Your task to perform on an android device: snooze an email in the gmail app Image 0: 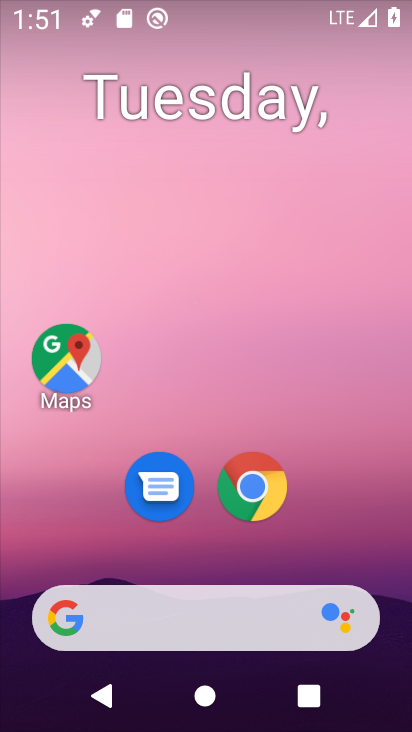
Step 0: press home button
Your task to perform on an android device: snooze an email in the gmail app Image 1: 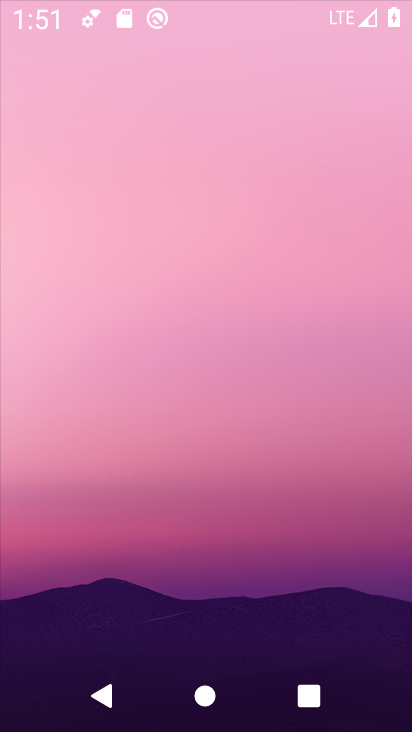
Step 1: drag from (358, 172) to (369, 99)
Your task to perform on an android device: snooze an email in the gmail app Image 2: 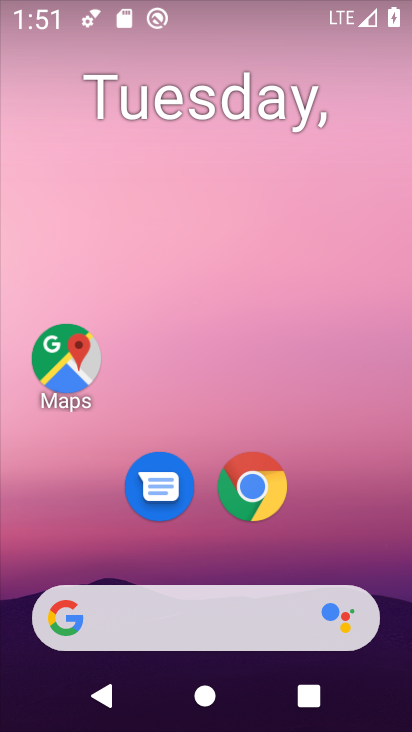
Step 2: drag from (377, 527) to (362, 109)
Your task to perform on an android device: snooze an email in the gmail app Image 3: 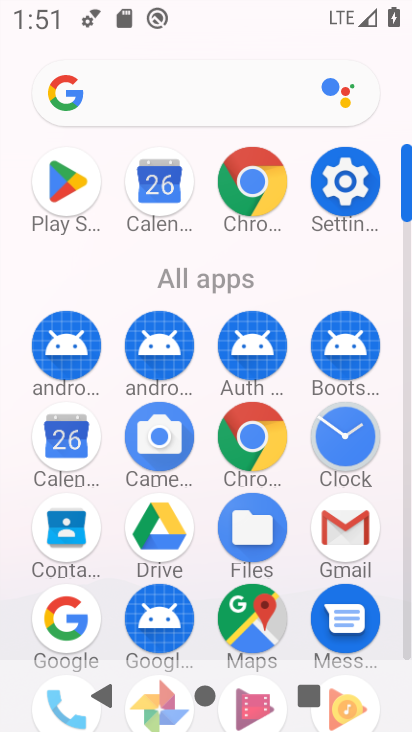
Step 3: click (349, 540)
Your task to perform on an android device: snooze an email in the gmail app Image 4: 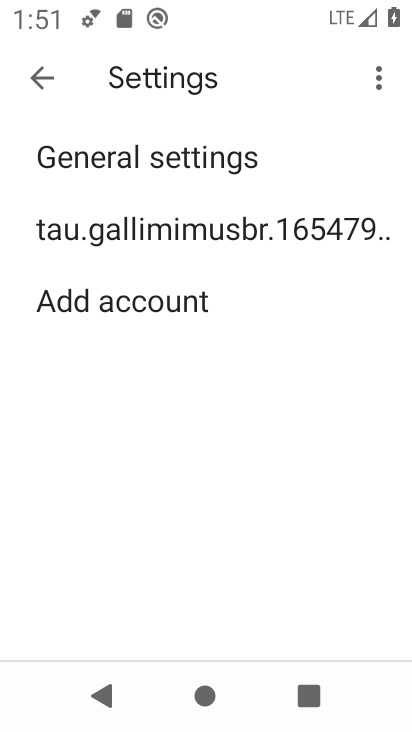
Step 4: press back button
Your task to perform on an android device: snooze an email in the gmail app Image 5: 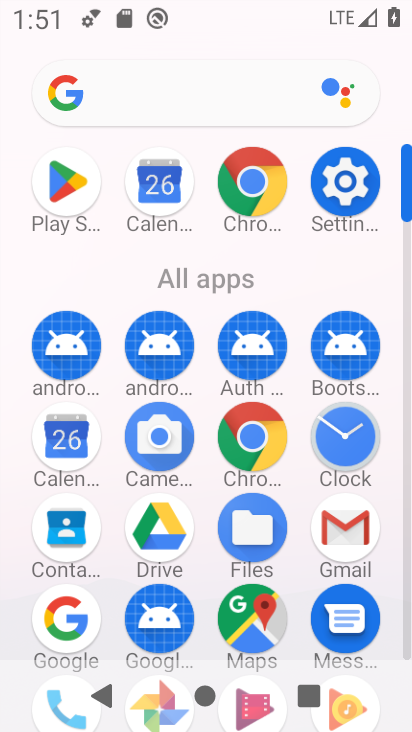
Step 5: click (349, 537)
Your task to perform on an android device: snooze an email in the gmail app Image 6: 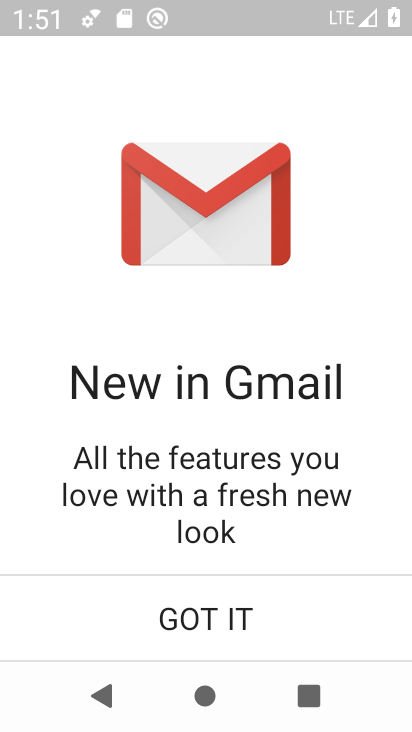
Step 6: click (277, 601)
Your task to perform on an android device: snooze an email in the gmail app Image 7: 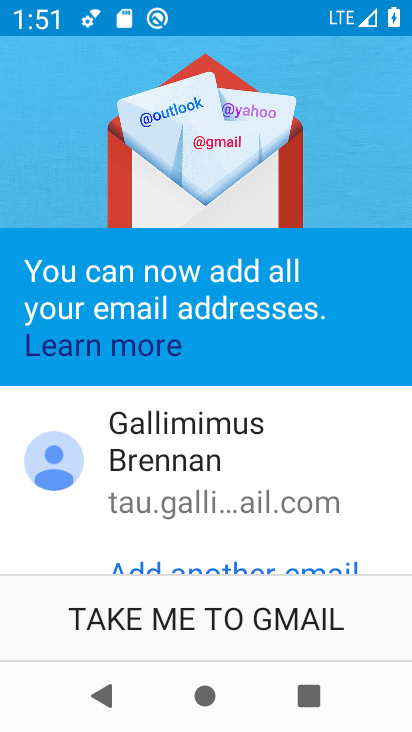
Step 7: click (263, 633)
Your task to perform on an android device: snooze an email in the gmail app Image 8: 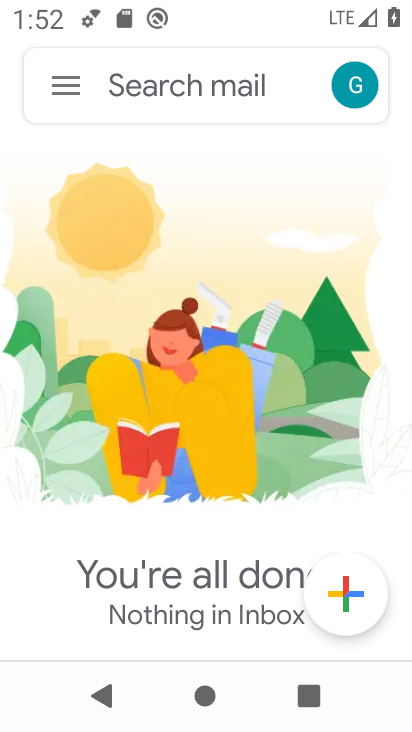
Step 8: click (54, 81)
Your task to perform on an android device: snooze an email in the gmail app Image 9: 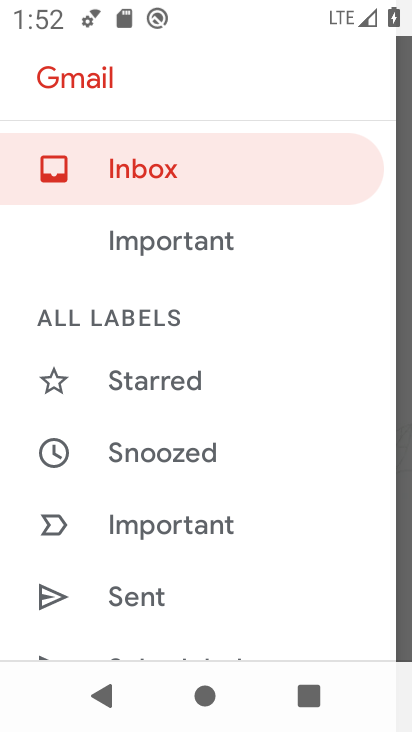
Step 9: drag from (292, 432) to (296, 358)
Your task to perform on an android device: snooze an email in the gmail app Image 10: 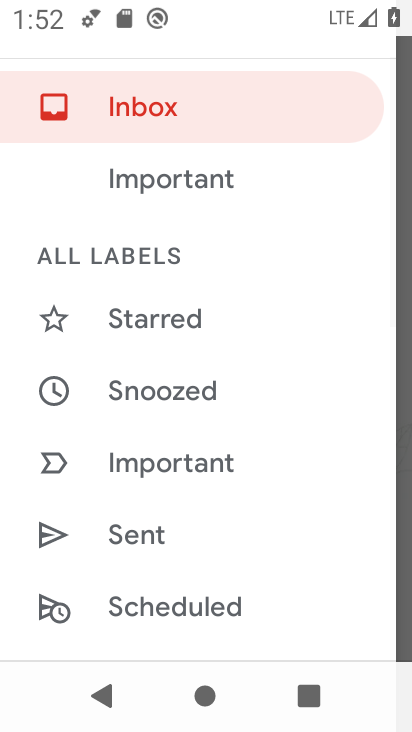
Step 10: drag from (280, 478) to (292, 362)
Your task to perform on an android device: snooze an email in the gmail app Image 11: 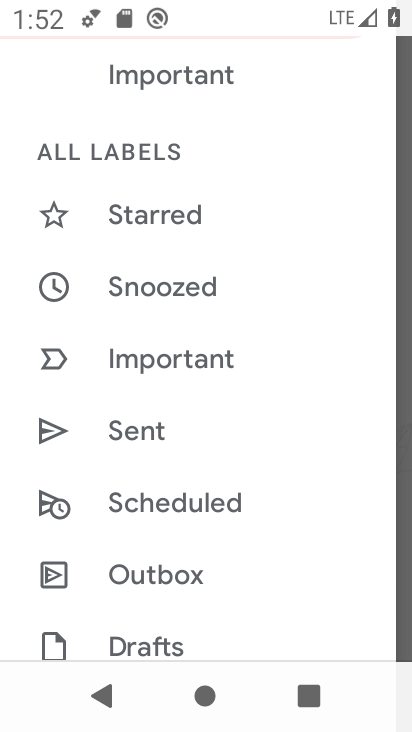
Step 11: click (259, 314)
Your task to perform on an android device: snooze an email in the gmail app Image 12: 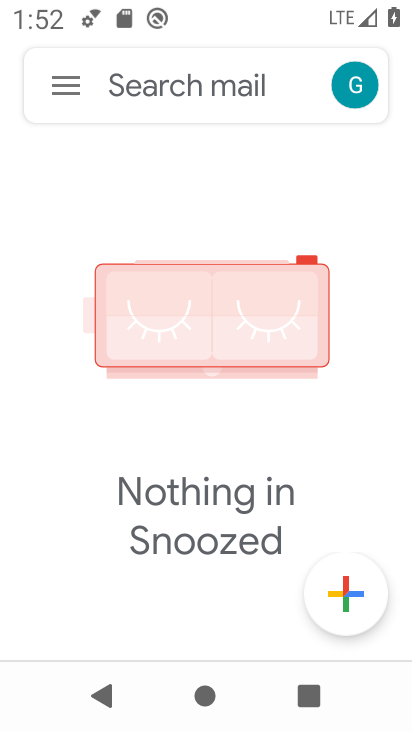
Step 12: task complete